Your task to perform on an android device: toggle show notifications on the lock screen Image 0: 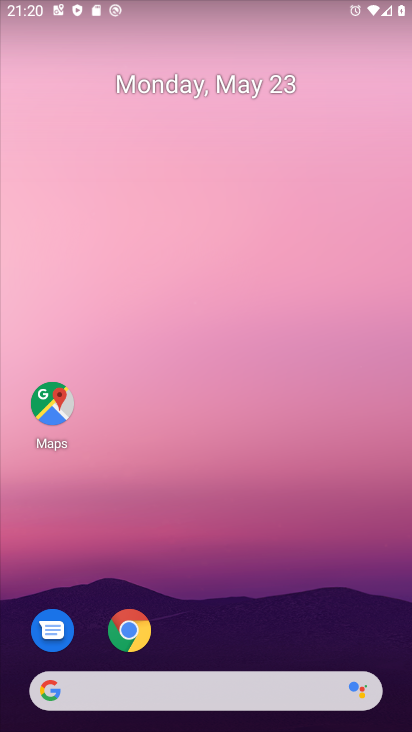
Step 0: drag from (178, 683) to (185, 201)
Your task to perform on an android device: toggle show notifications on the lock screen Image 1: 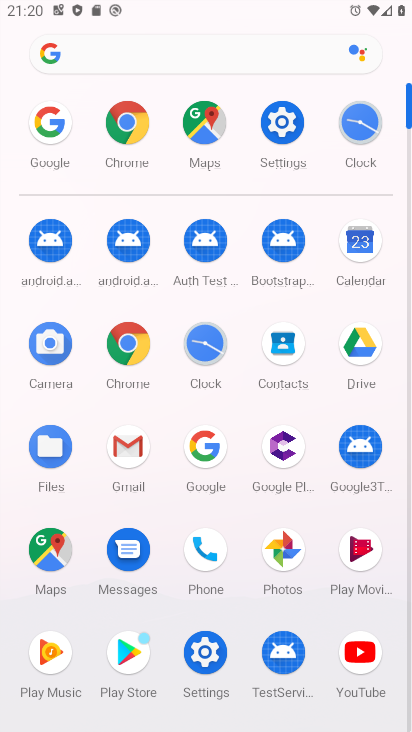
Step 1: click (272, 127)
Your task to perform on an android device: toggle show notifications on the lock screen Image 2: 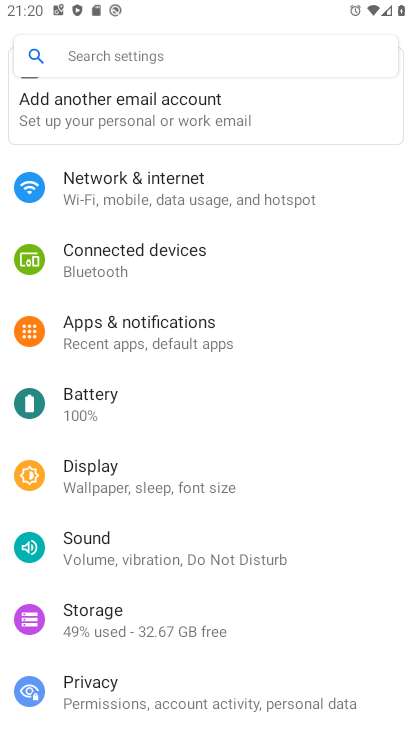
Step 2: drag from (124, 696) to (121, 268)
Your task to perform on an android device: toggle show notifications on the lock screen Image 3: 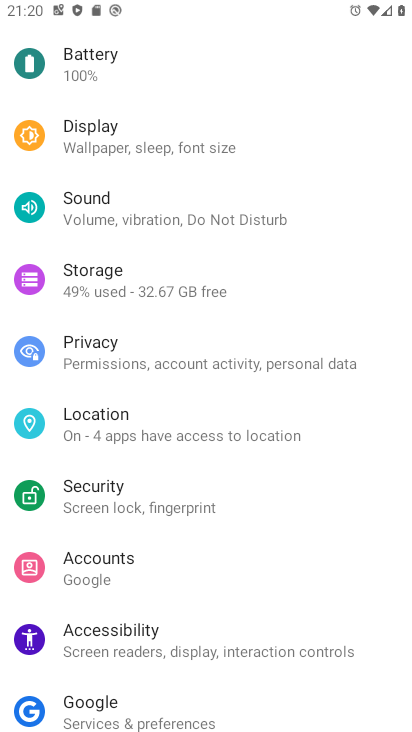
Step 3: click (104, 342)
Your task to perform on an android device: toggle show notifications on the lock screen Image 4: 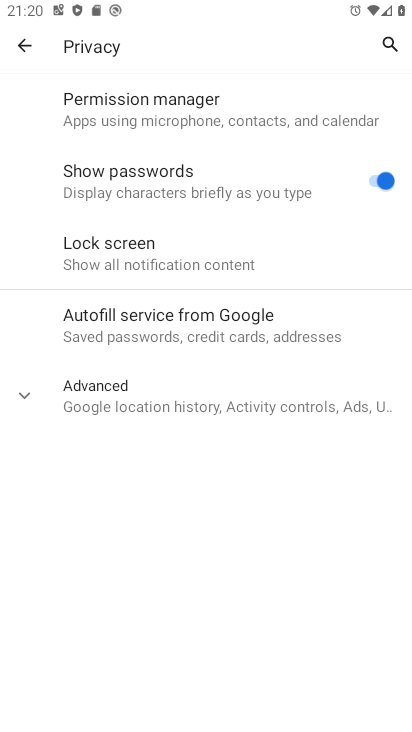
Step 4: click (105, 405)
Your task to perform on an android device: toggle show notifications on the lock screen Image 5: 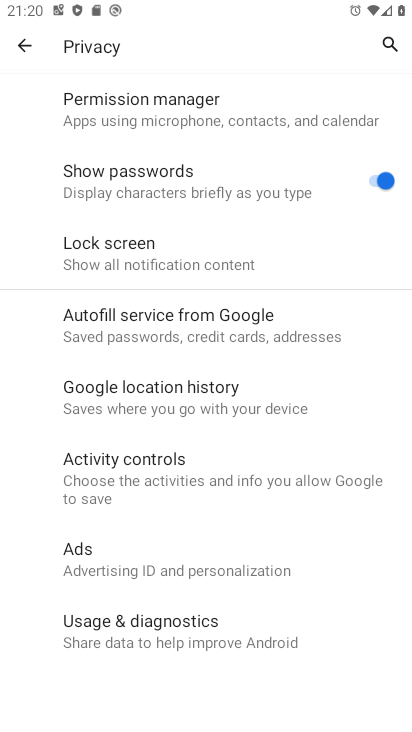
Step 5: click (95, 250)
Your task to perform on an android device: toggle show notifications on the lock screen Image 6: 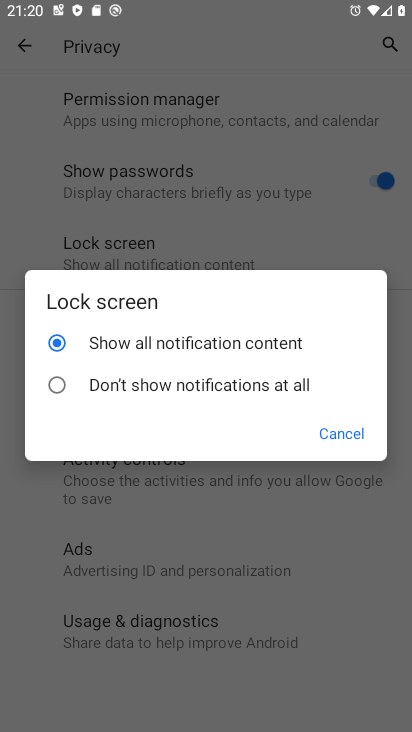
Step 6: click (340, 430)
Your task to perform on an android device: toggle show notifications on the lock screen Image 7: 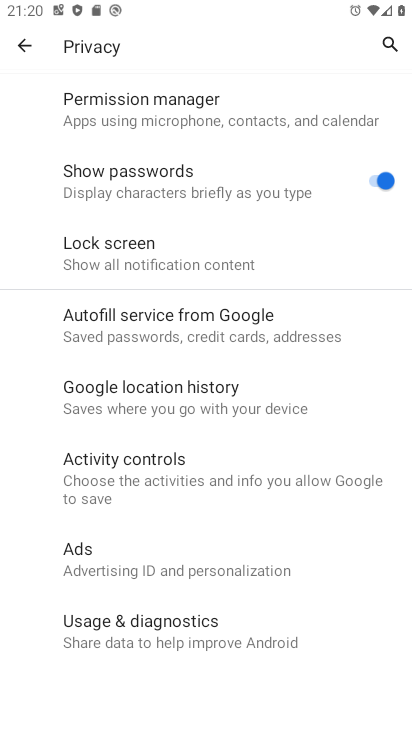
Step 7: task complete